Your task to perform on an android device: turn off sleep mode Image 0: 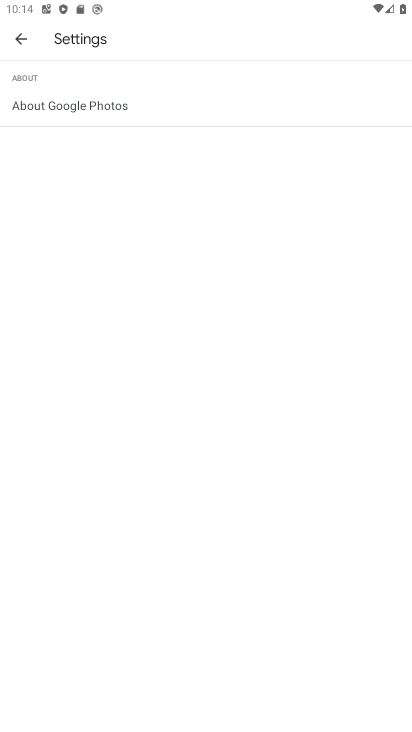
Step 0: press home button
Your task to perform on an android device: turn off sleep mode Image 1: 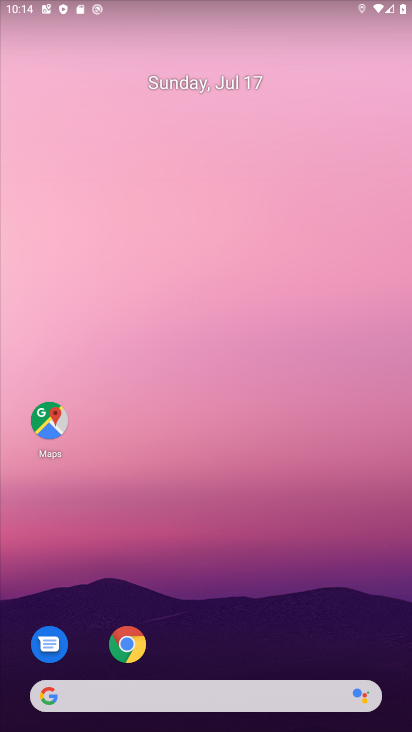
Step 1: drag from (181, 57) to (233, 334)
Your task to perform on an android device: turn off sleep mode Image 2: 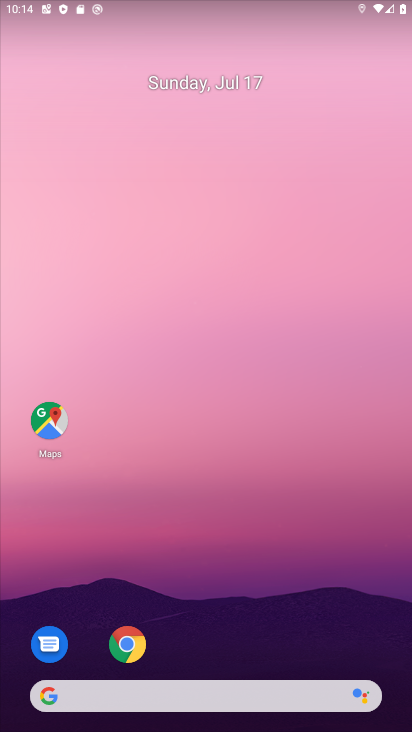
Step 2: drag from (234, 3) to (208, 356)
Your task to perform on an android device: turn off sleep mode Image 3: 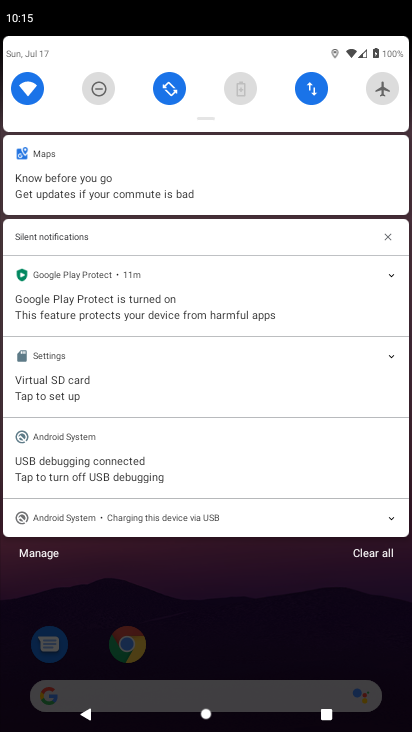
Step 3: click (381, 561)
Your task to perform on an android device: turn off sleep mode Image 4: 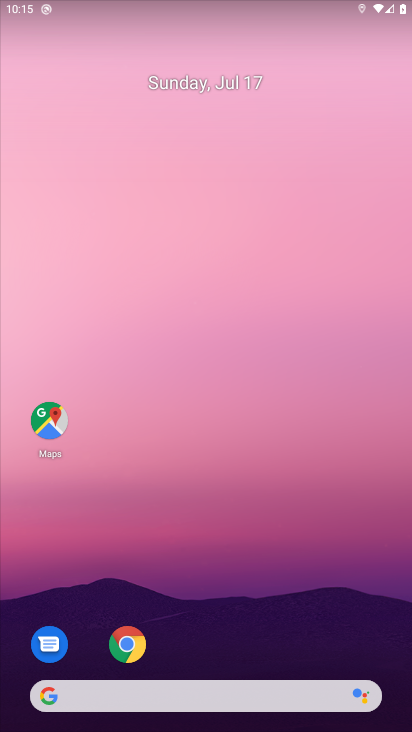
Step 4: drag from (276, 604) to (292, 0)
Your task to perform on an android device: turn off sleep mode Image 5: 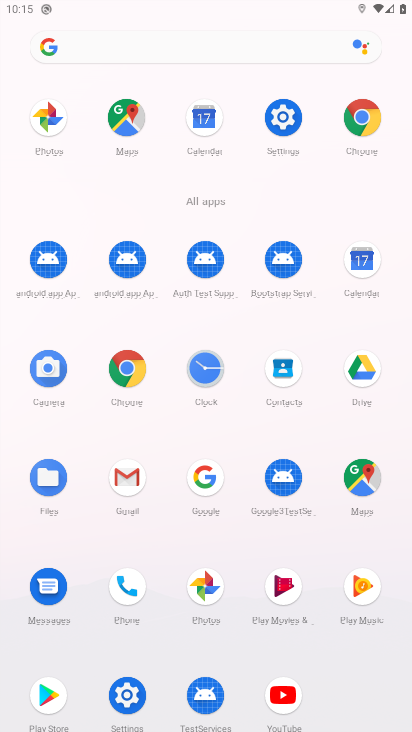
Step 5: click (275, 110)
Your task to perform on an android device: turn off sleep mode Image 6: 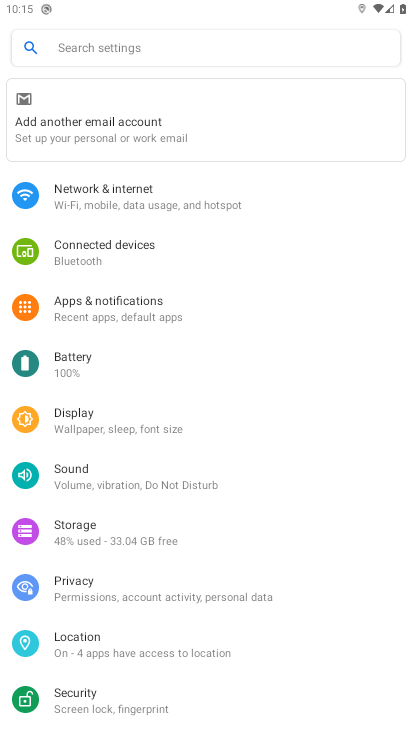
Step 6: click (95, 426)
Your task to perform on an android device: turn off sleep mode Image 7: 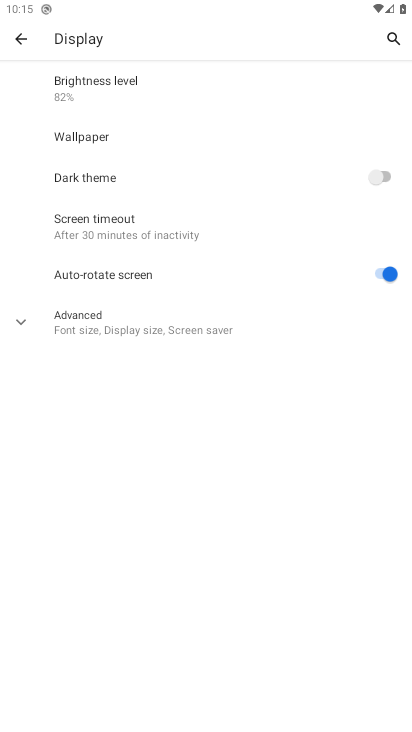
Step 7: task complete